Your task to perform on an android device: Open Chrome and go to the settings page Image 0: 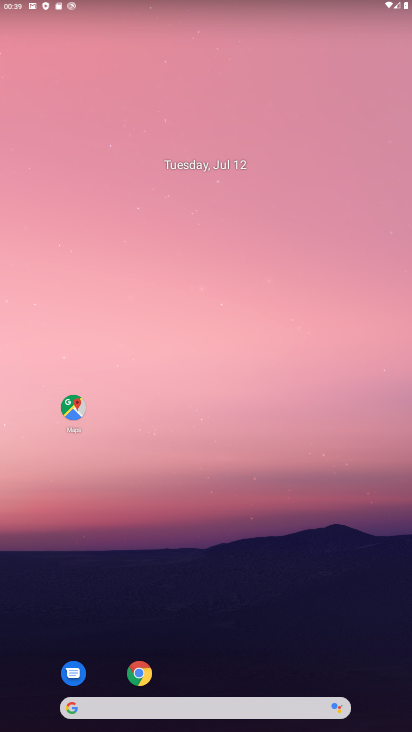
Step 0: press home button
Your task to perform on an android device: Open Chrome and go to the settings page Image 1: 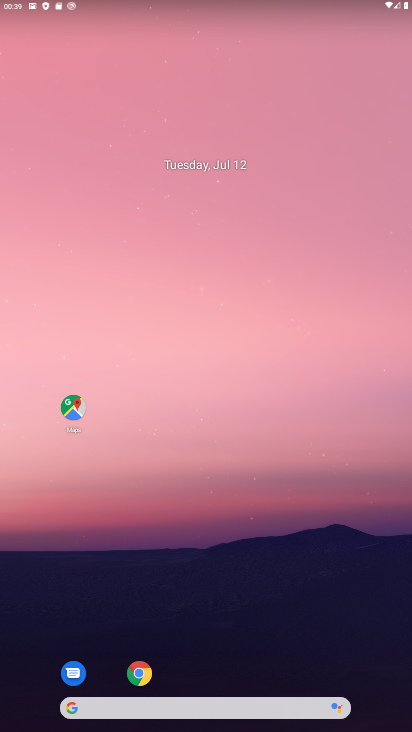
Step 1: click (139, 675)
Your task to perform on an android device: Open Chrome and go to the settings page Image 2: 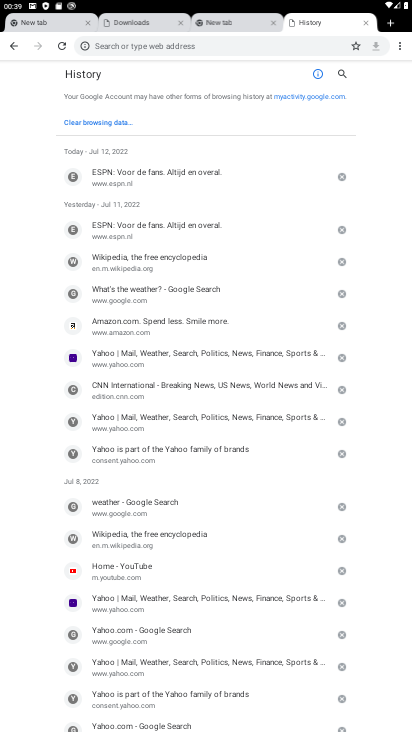
Step 2: task complete